Your task to perform on an android device: Search for vegetarian restaurants on Maps Image 0: 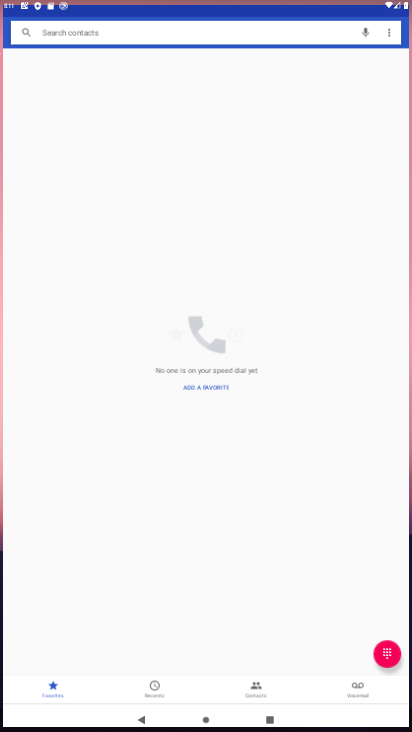
Step 0: press home button
Your task to perform on an android device: Search for vegetarian restaurants on Maps Image 1: 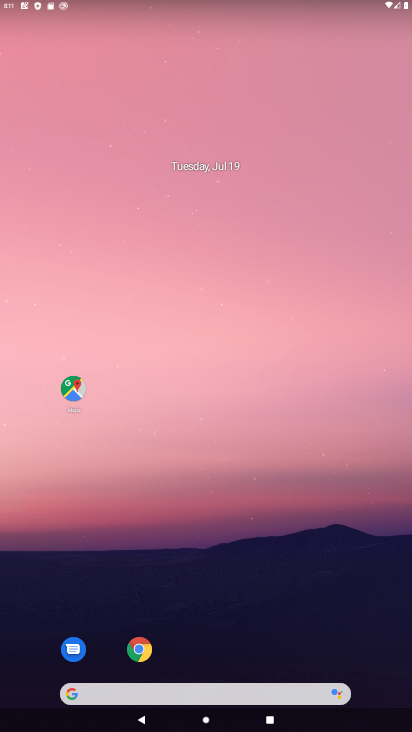
Step 1: click (73, 387)
Your task to perform on an android device: Search for vegetarian restaurants on Maps Image 2: 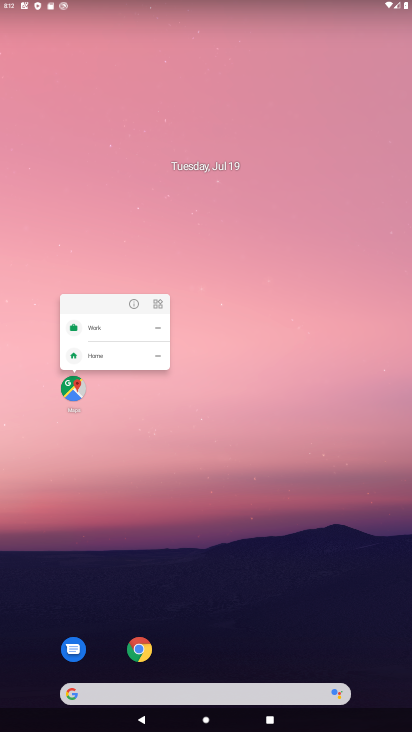
Step 2: click (71, 387)
Your task to perform on an android device: Search for vegetarian restaurants on Maps Image 3: 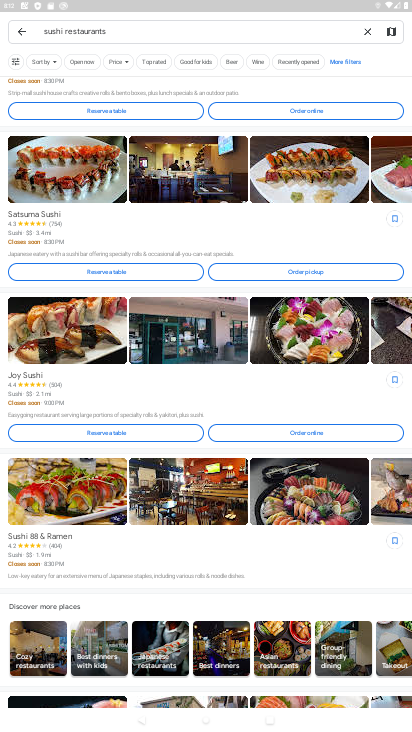
Step 3: click (126, 25)
Your task to perform on an android device: Search for vegetarian restaurants on Maps Image 4: 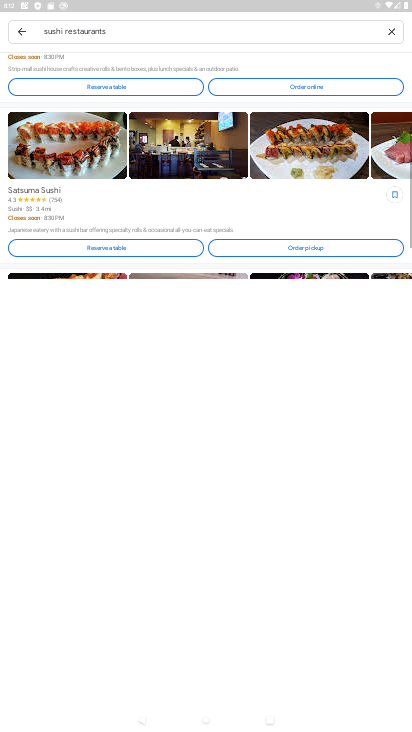
Step 4: click (368, 30)
Your task to perform on an android device: Search for vegetarian restaurants on Maps Image 5: 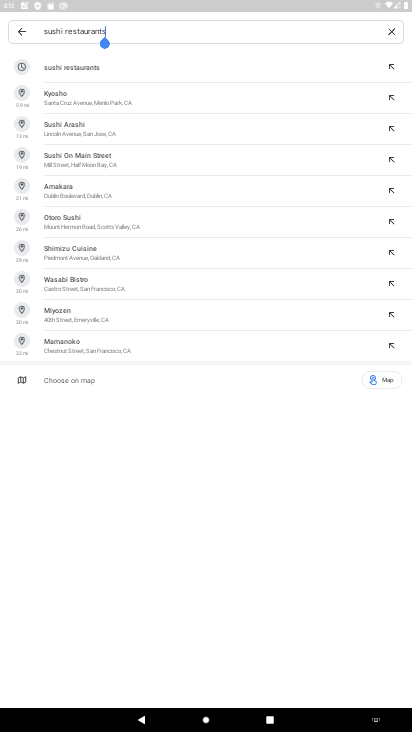
Step 5: click (391, 26)
Your task to perform on an android device: Search for vegetarian restaurants on Maps Image 6: 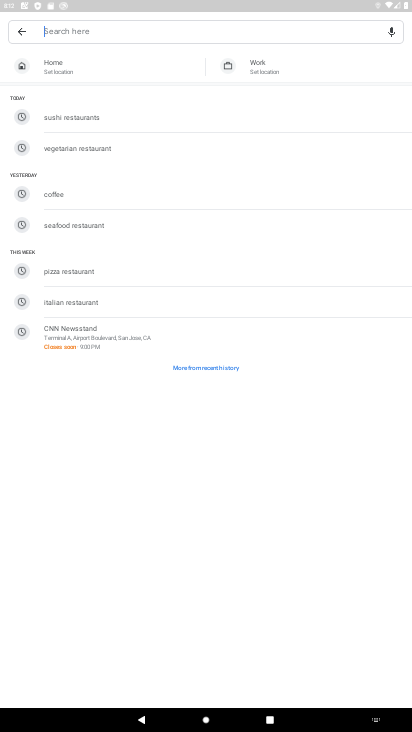
Step 6: click (94, 145)
Your task to perform on an android device: Search for vegetarian restaurants on Maps Image 7: 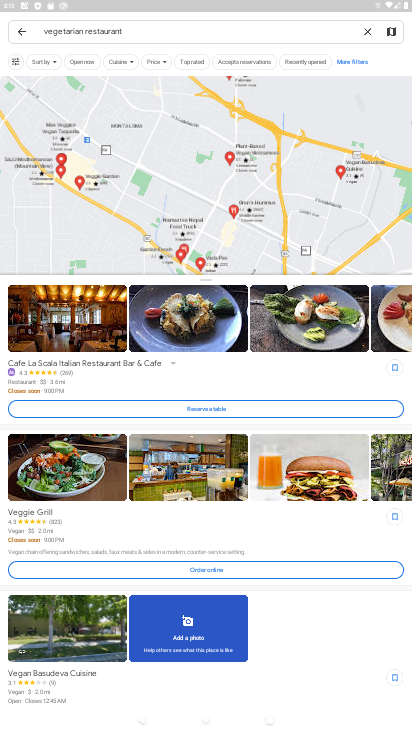
Step 7: task complete